Your task to perform on an android device: add a contact in the contacts app Image 0: 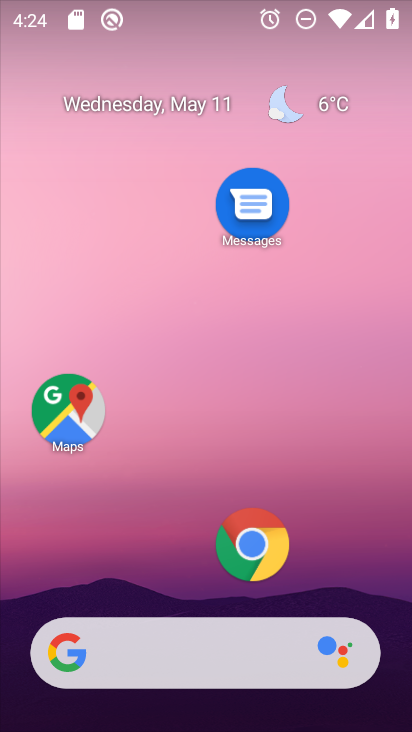
Step 0: drag from (190, 422) to (278, 3)
Your task to perform on an android device: add a contact in the contacts app Image 1: 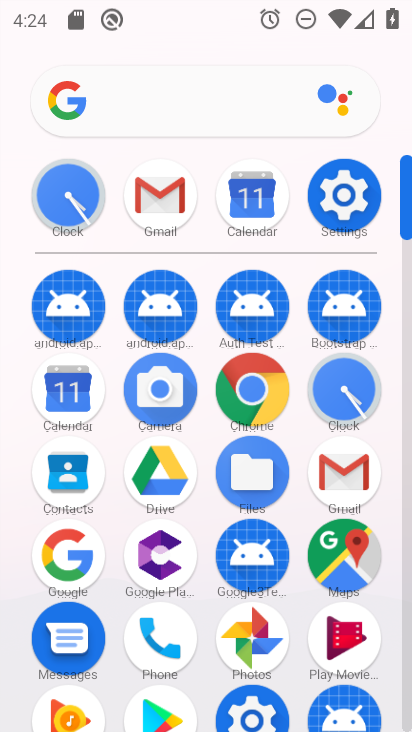
Step 1: click (64, 482)
Your task to perform on an android device: add a contact in the contacts app Image 2: 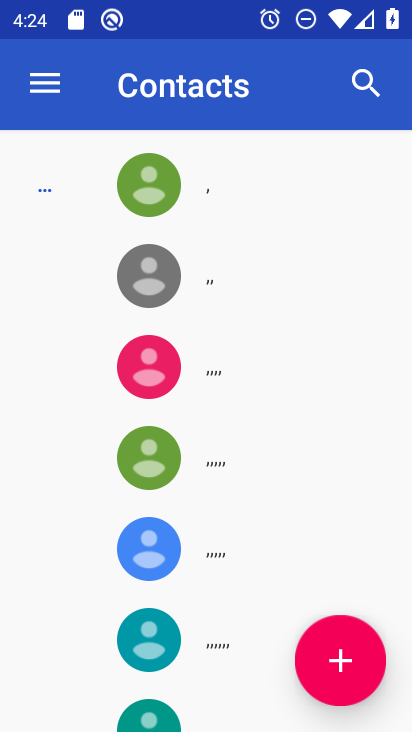
Step 2: click (354, 652)
Your task to perform on an android device: add a contact in the contacts app Image 3: 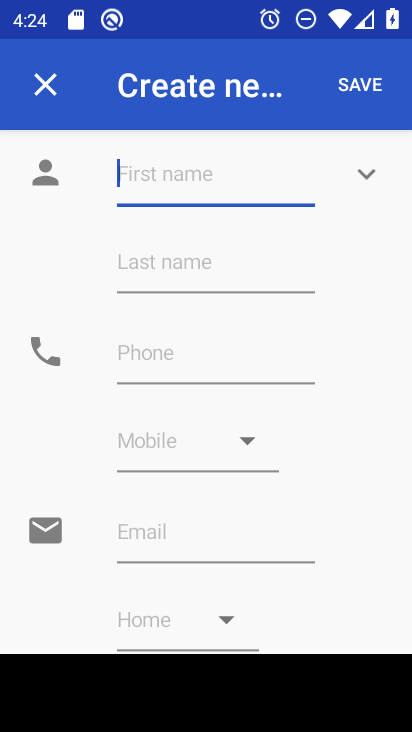
Step 3: click (149, 177)
Your task to perform on an android device: add a contact in the contacts app Image 4: 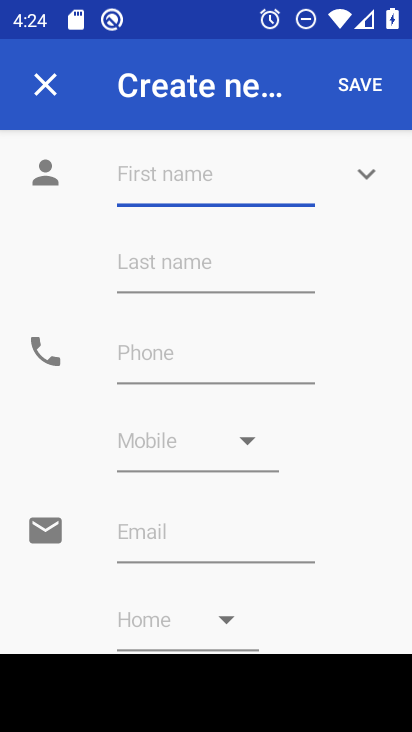
Step 4: type "jbjbj"
Your task to perform on an android device: add a contact in the contacts app Image 5: 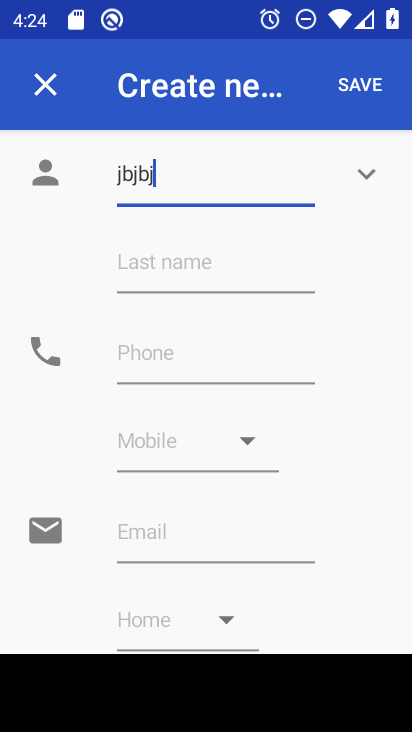
Step 5: click (149, 357)
Your task to perform on an android device: add a contact in the contacts app Image 6: 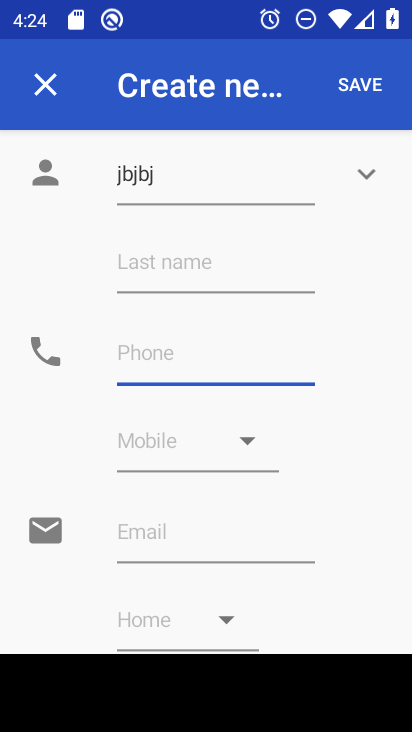
Step 6: type "767"
Your task to perform on an android device: add a contact in the contacts app Image 7: 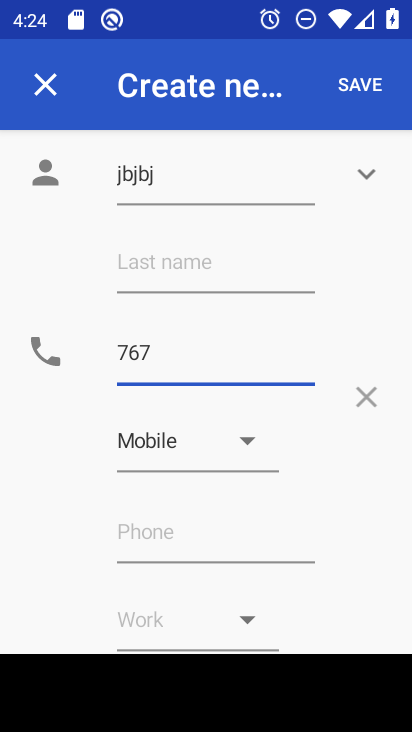
Step 7: click (368, 89)
Your task to perform on an android device: add a contact in the contacts app Image 8: 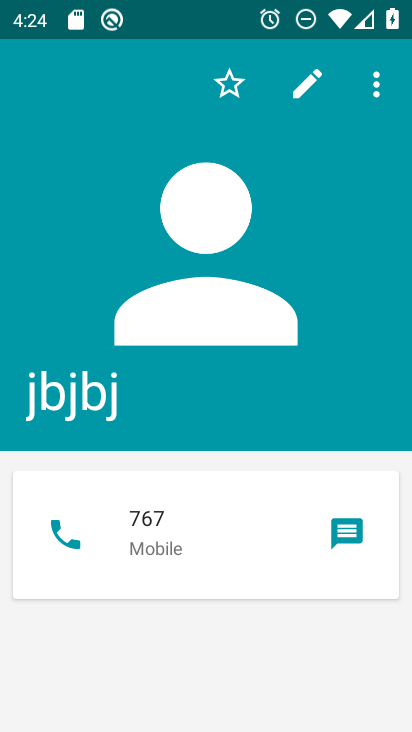
Step 8: task complete